Your task to perform on an android device: Is it going to rain this weekend? Image 0: 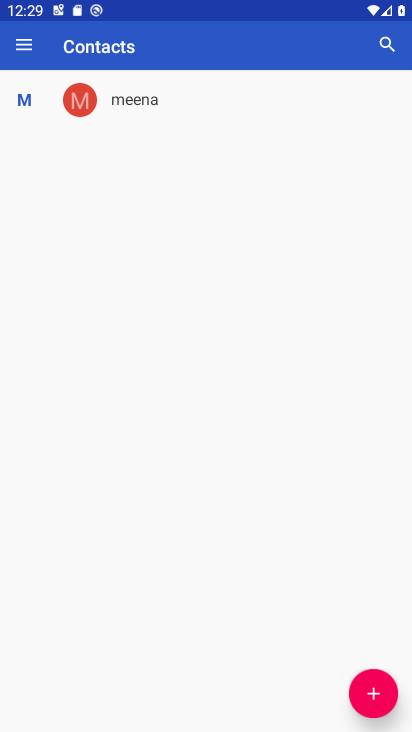
Step 0: press home button
Your task to perform on an android device: Is it going to rain this weekend? Image 1: 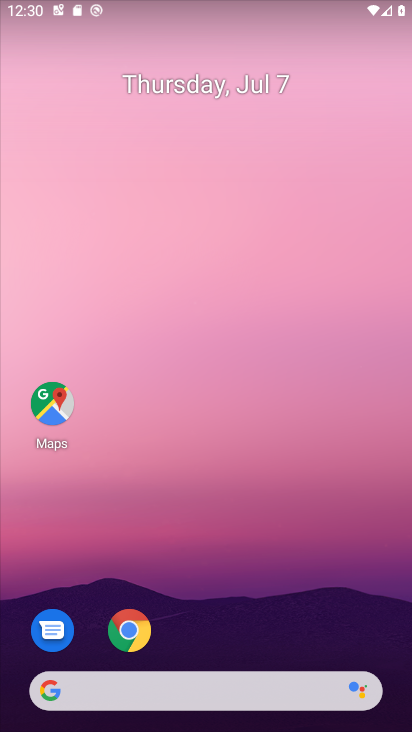
Step 1: drag from (275, 619) to (283, 235)
Your task to perform on an android device: Is it going to rain this weekend? Image 2: 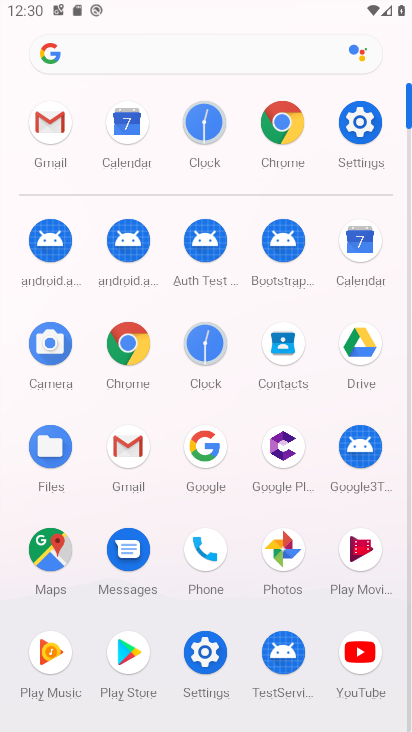
Step 2: click (349, 237)
Your task to perform on an android device: Is it going to rain this weekend? Image 3: 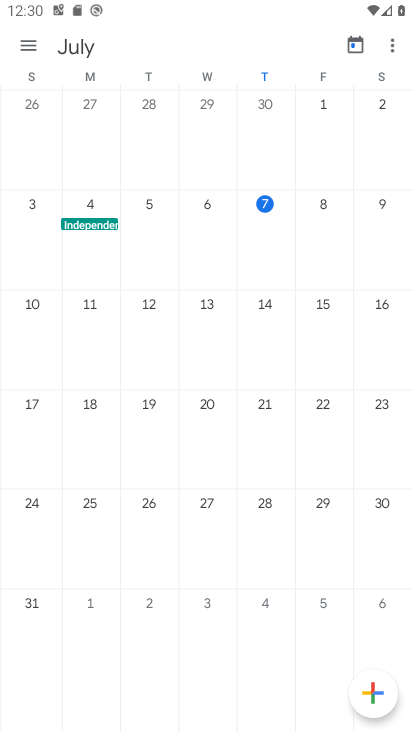
Step 3: task complete